Your task to perform on an android device: move an email to a new category in the gmail app Image 0: 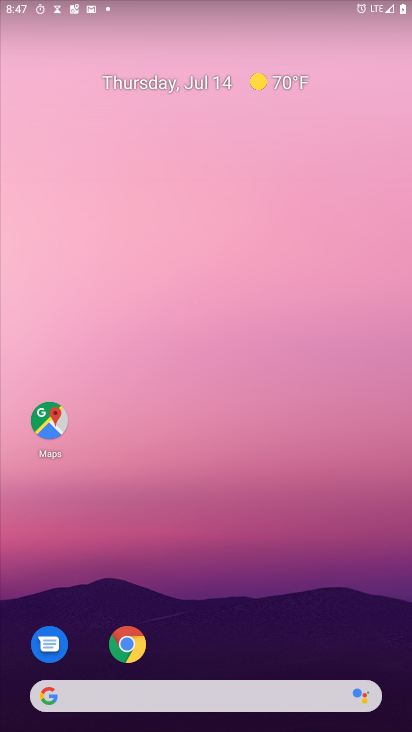
Step 0: press home button
Your task to perform on an android device: move an email to a new category in the gmail app Image 1: 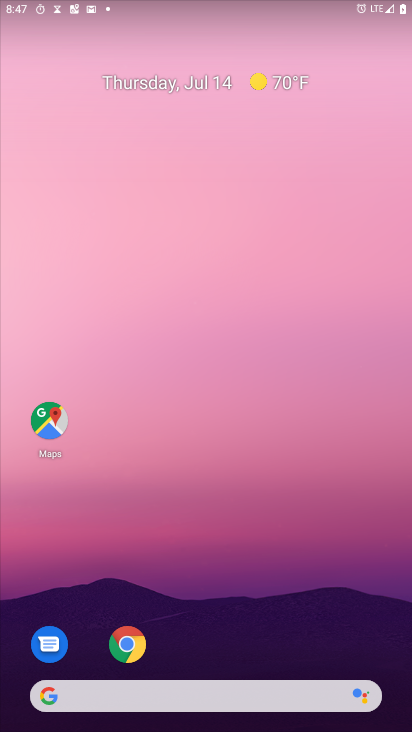
Step 1: drag from (168, 698) to (257, 213)
Your task to perform on an android device: move an email to a new category in the gmail app Image 2: 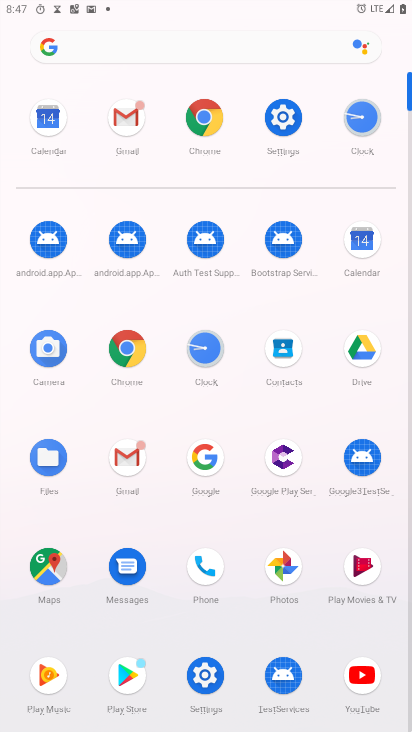
Step 2: click (121, 129)
Your task to perform on an android device: move an email to a new category in the gmail app Image 3: 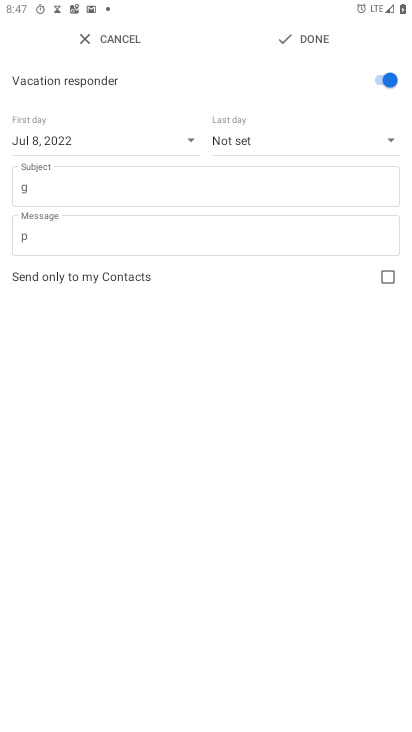
Step 3: press back button
Your task to perform on an android device: move an email to a new category in the gmail app Image 4: 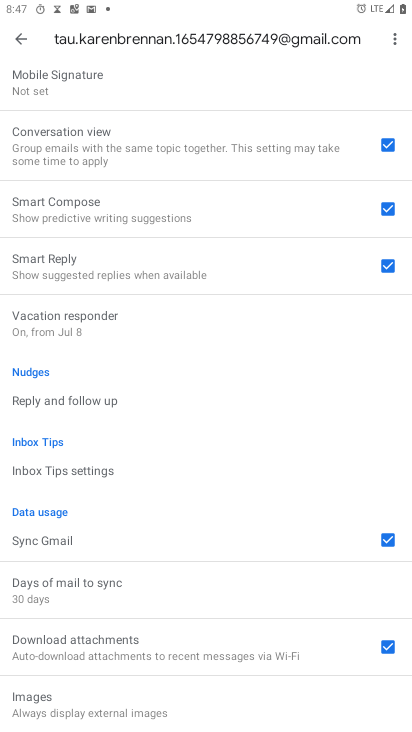
Step 4: click (23, 39)
Your task to perform on an android device: move an email to a new category in the gmail app Image 5: 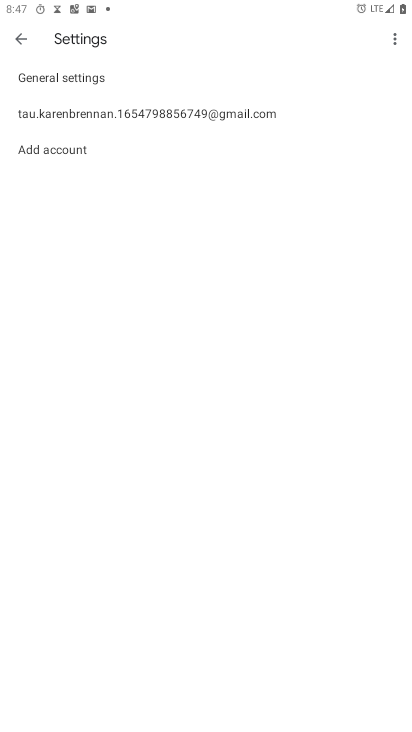
Step 5: click (19, 33)
Your task to perform on an android device: move an email to a new category in the gmail app Image 6: 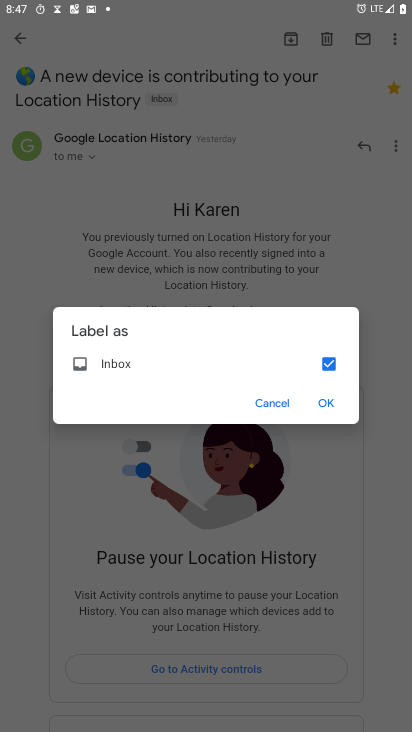
Step 6: click (285, 403)
Your task to perform on an android device: move an email to a new category in the gmail app Image 7: 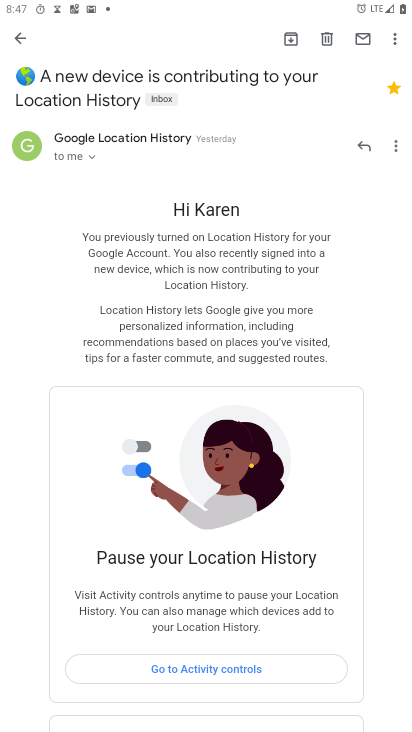
Step 7: click (17, 35)
Your task to perform on an android device: move an email to a new category in the gmail app Image 8: 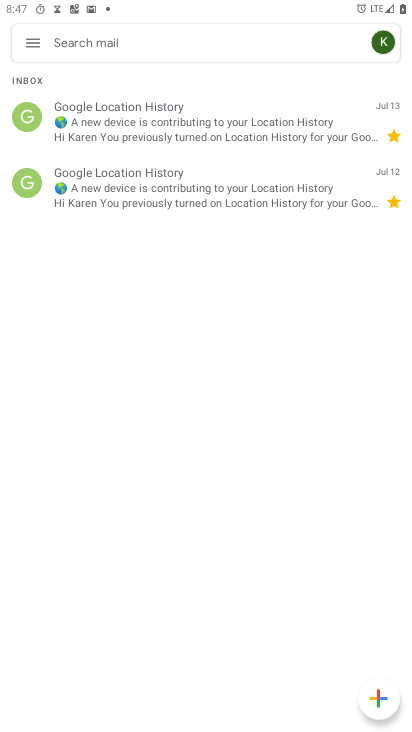
Step 8: click (31, 122)
Your task to perform on an android device: move an email to a new category in the gmail app Image 9: 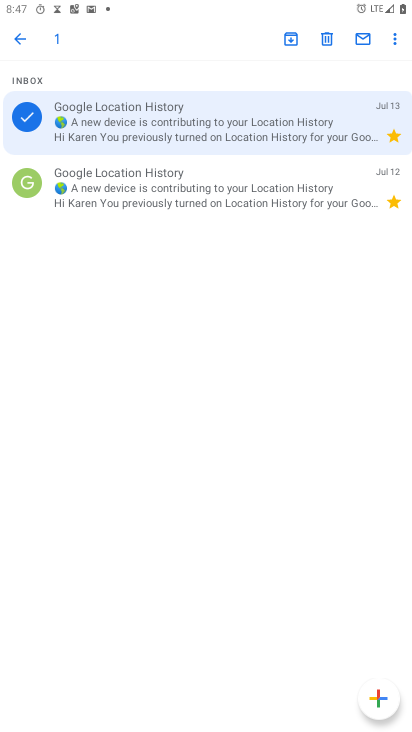
Step 9: click (389, 42)
Your task to perform on an android device: move an email to a new category in the gmail app Image 10: 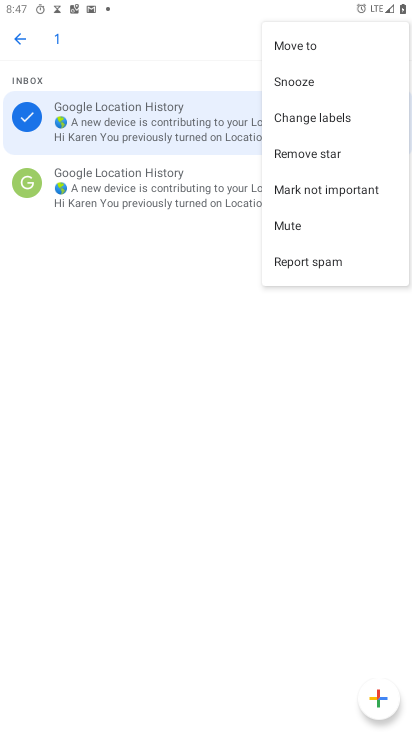
Step 10: click (205, 310)
Your task to perform on an android device: move an email to a new category in the gmail app Image 11: 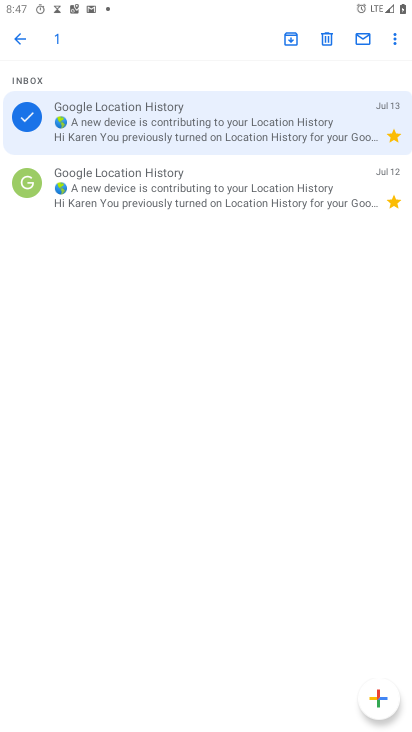
Step 11: click (264, 138)
Your task to perform on an android device: move an email to a new category in the gmail app Image 12: 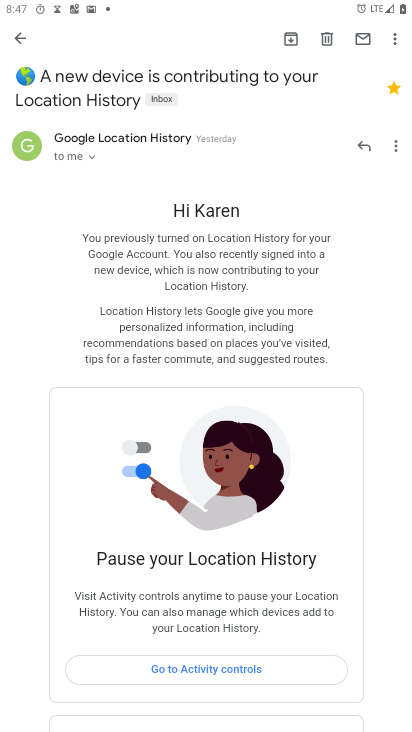
Step 12: task complete